Your task to perform on an android device: check storage Image 0: 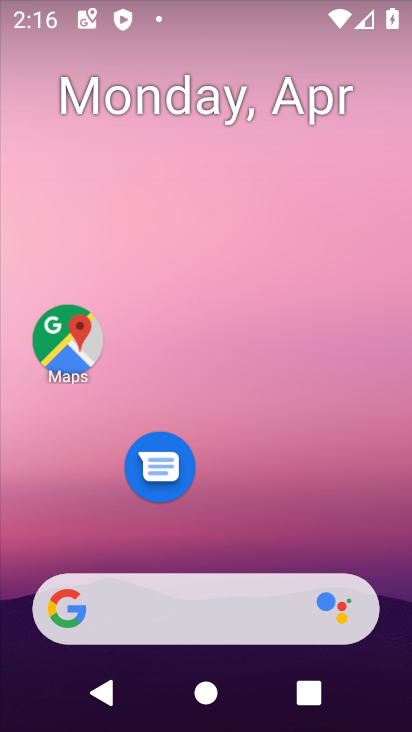
Step 0: drag from (265, 472) to (262, 125)
Your task to perform on an android device: check storage Image 1: 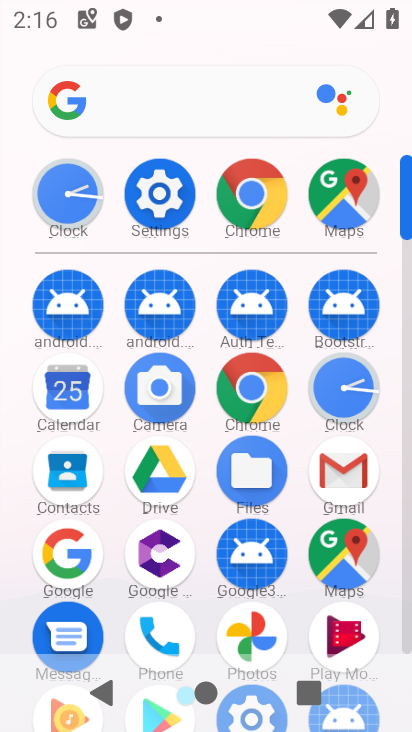
Step 1: click (143, 209)
Your task to perform on an android device: check storage Image 2: 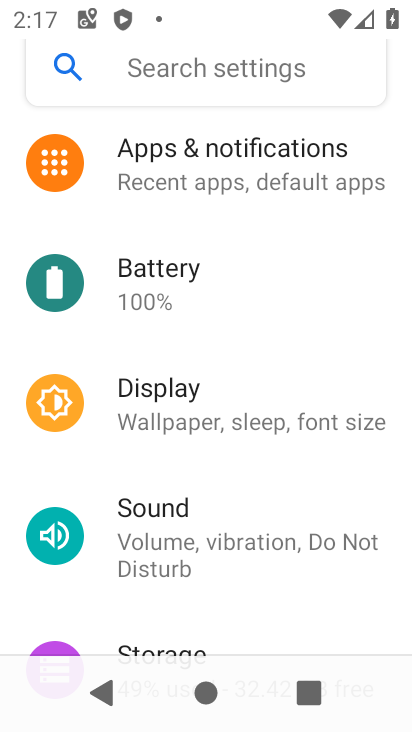
Step 2: drag from (286, 566) to (293, 320)
Your task to perform on an android device: check storage Image 3: 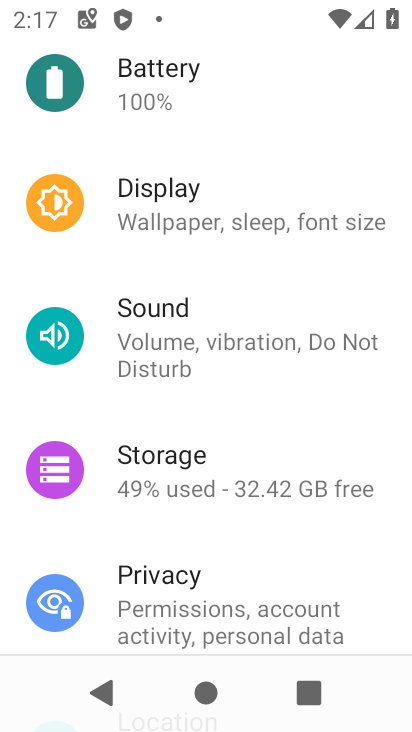
Step 3: click (233, 481)
Your task to perform on an android device: check storage Image 4: 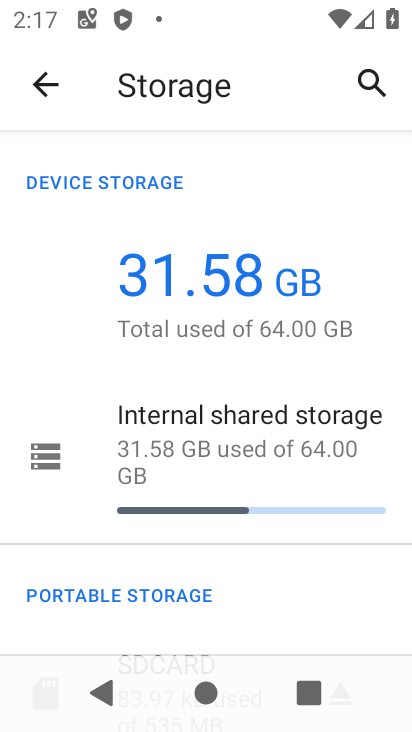
Step 4: task complete